Your task to perform on an android device: allow notifications from all sites in the chrome app Image 0: 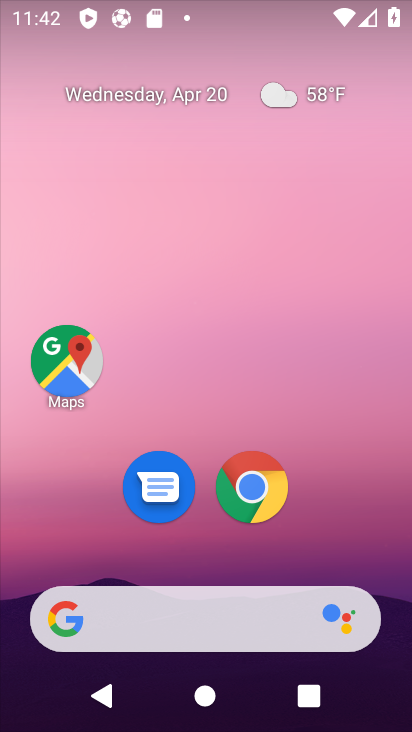
Step 0: click (254, 494)
Your task to perform on an android device: allow notifications from all sites in the chrome app Image 1: 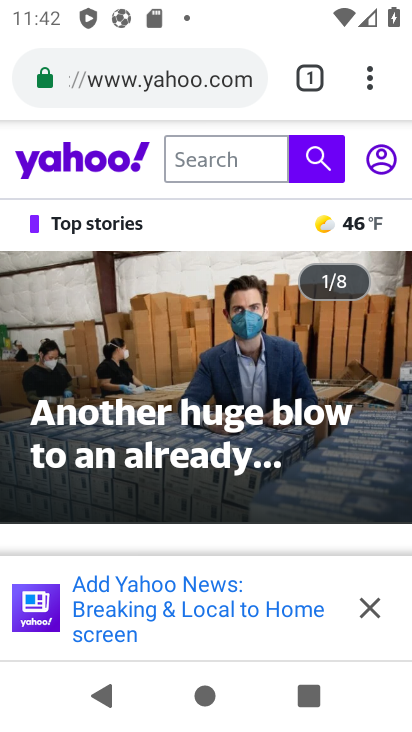
Step 1: click (372, 73)
Your task to perform on an android device: allow notifications from all sites in the chrome app Image 2: 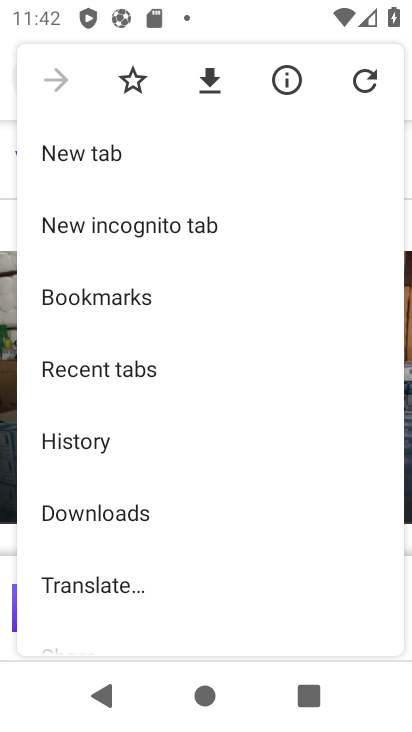
Step 2: drag from (215, 494) to (203, 129)
Your task to perform on an android device: allow notifications from all sites in the chrome app Image 3: 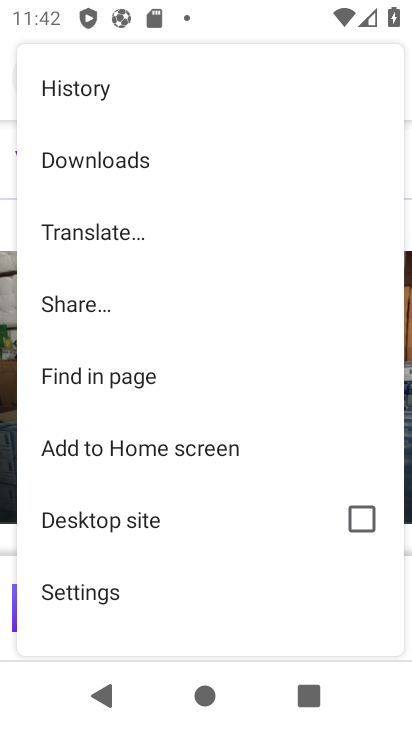
Step 3: click (103, 590)
Your task to perform on an android device: allow notifications from all sites in the chrome app Image 4: 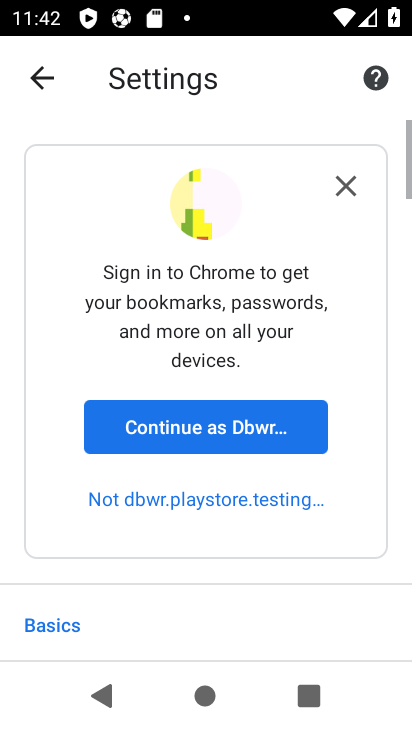
Step 4: drag from (196, 331) to (197, 109)
Your task to perform on an android device: allow notifications from all sites in the chrome app Image 5: 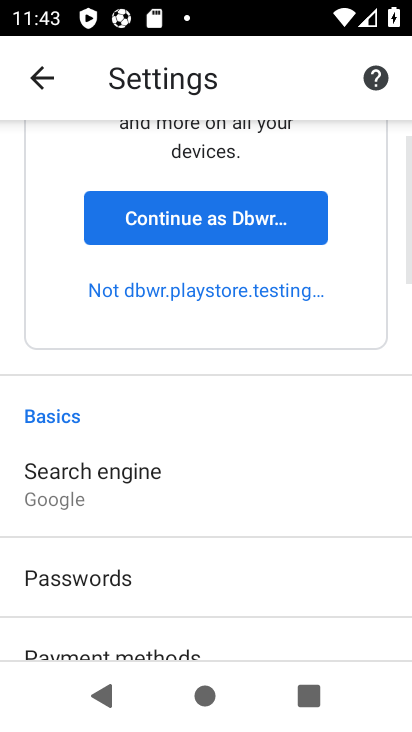
Step 5: drag from (207, 501) to (208, 83)
Your task to perform on an android device: allow notifications from all sites in the chrome app Image 6: 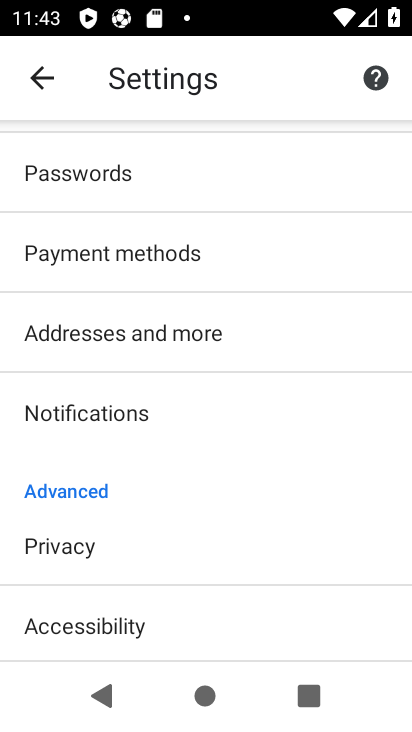
Step 6: drag from (199, 558) to (199, 308)
Your task to perform on an android device: allow notifications from all sites in the chrome app Image 7: 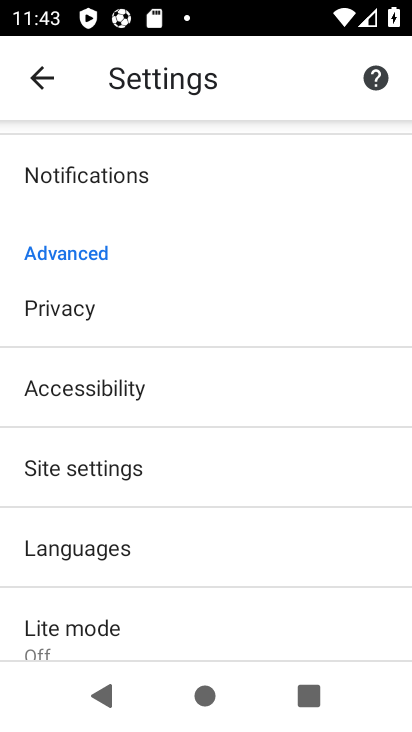
Step 7: drag from (134, 583) to (130, 364)
Your task to perform on an android device: allow notifications from all sites in the chrome app Image 8: 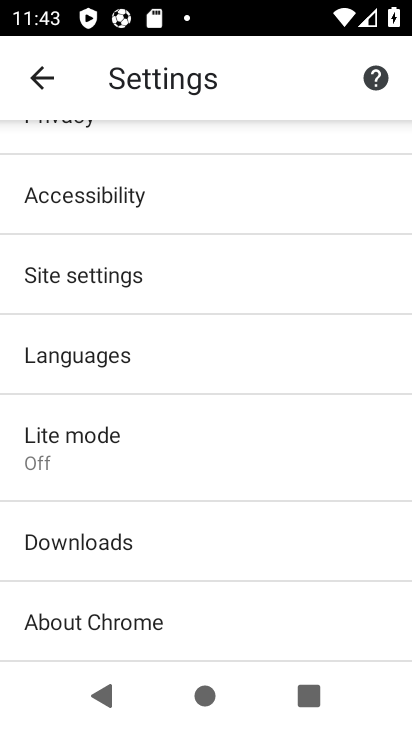
Step 8: click (122, 285)
Your task to perform on an android device: allow notifications from all sites in the chrome app Image 9: 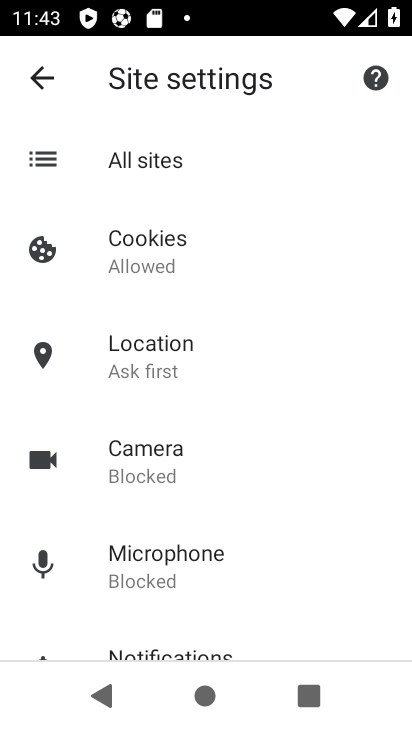
Step 9: drag from (239, 571) to (240, 344)
Your task to perform on an android device: allow notifications from all sites in the chrome app Image 10: 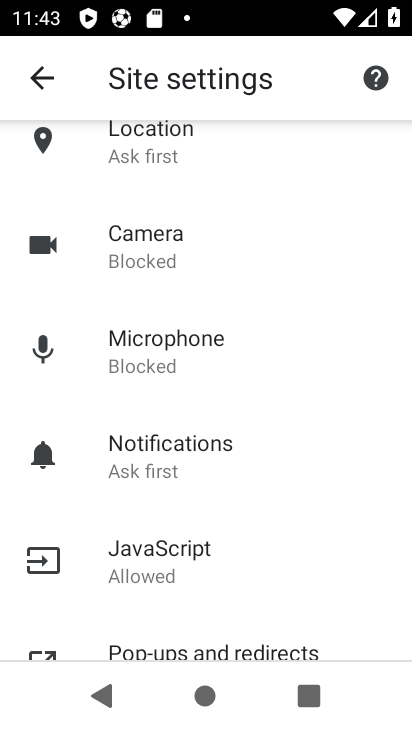
Step 10: click (156, 453)
Your task to perform on an android device: allow notifications from all sites in the chrome app Image 11: 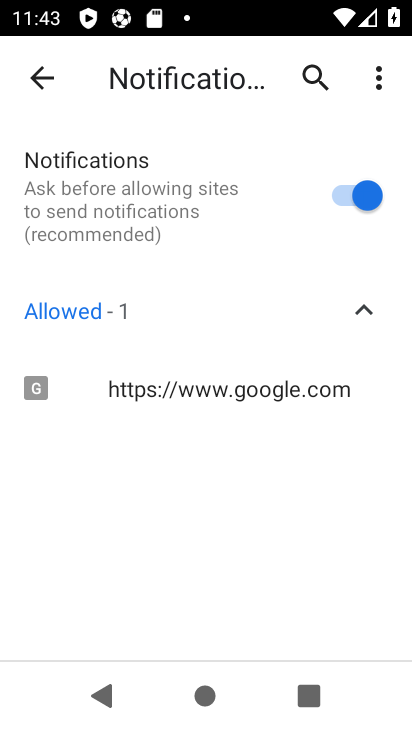
Step 11: task complete